Your task to perform on an android device: Clear all items from cart on walmart. Add bose soundsport free to the cart on walmart Image 0: 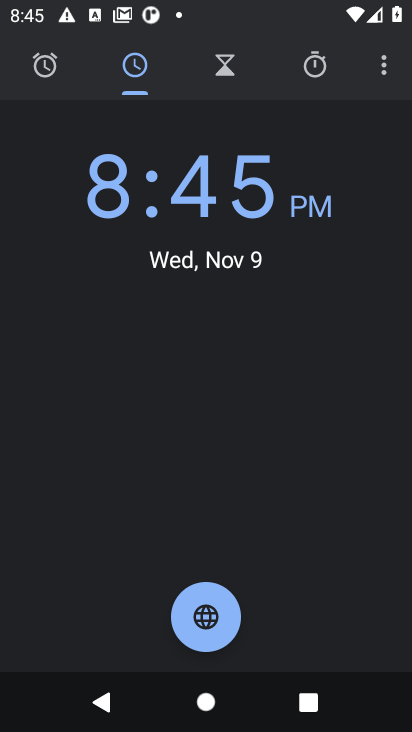
Step 0: press home button
Your task to perform on an android device: Clear all items from cart on walmart. Add bose soundsport free to the cart on walmart Image 1: 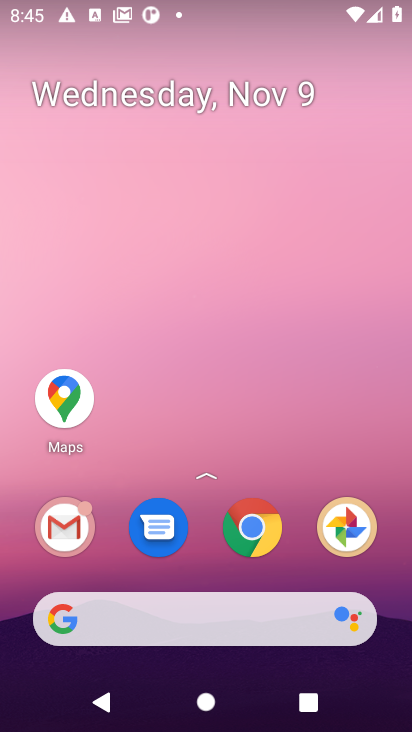
Step 1: click (256, 530)
Your task to perform on an android device: Clear all items from cart on walmart. Add bose soundsport free to the cart on walmart Image 2: 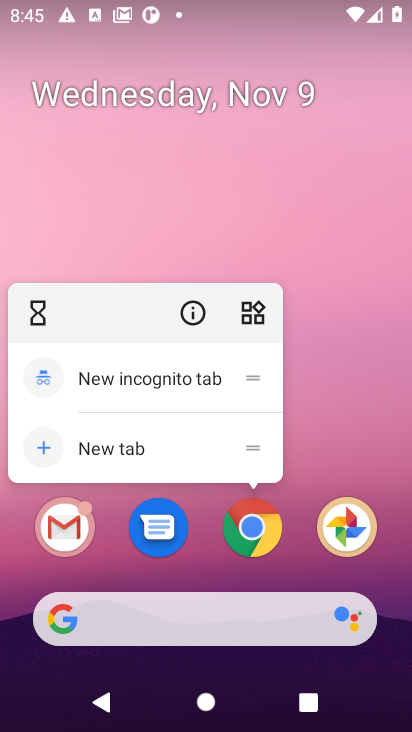
Step 2: click (256, 530)
Your task to perform on an android device: Clear all items from cart on walmart. Add bose soundsport free to the cart on walmart Image 3: 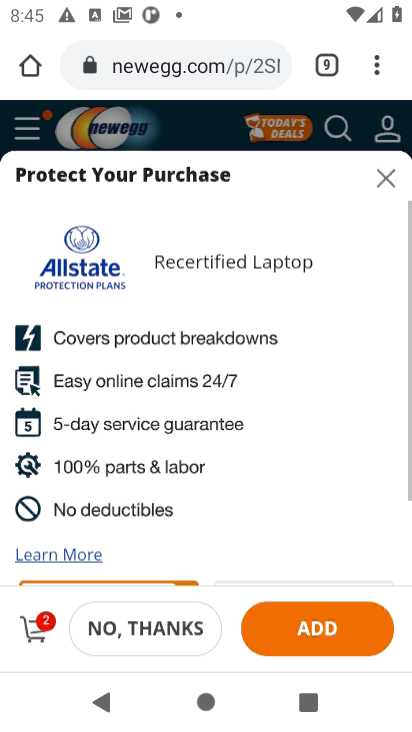
Step 3: click (186, 75)
Your task to perform on an android device: Clear all items from cart on walmart. Add bose soundsport free to the cart on walmart Image 4: 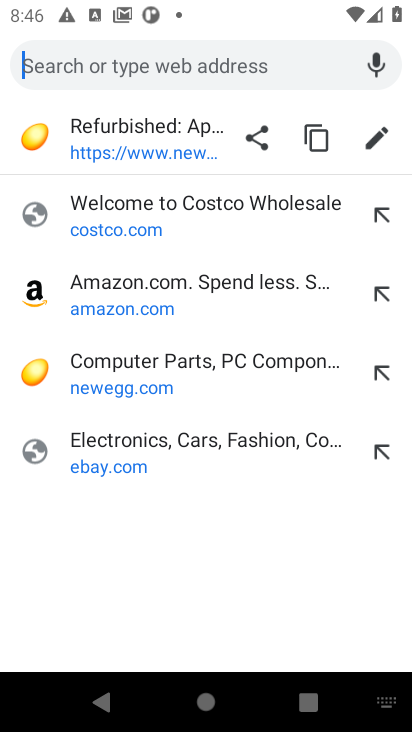
Step 4: click (182, 71)
Your task to perform on an android device: Clear all items from cart on walmart. Add bose soundsport free to the cart on walmart Image 5: 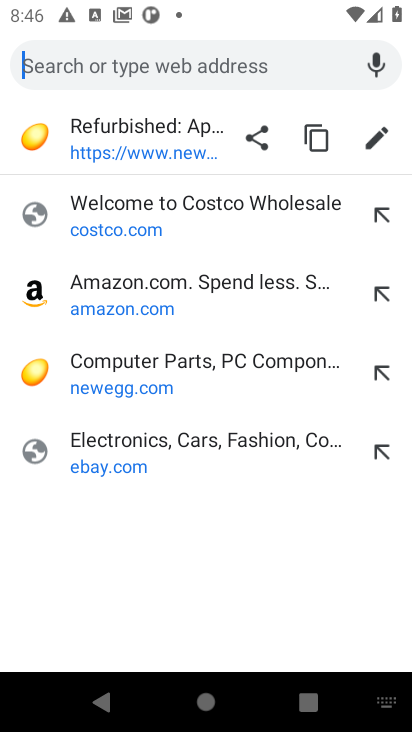
Step 5: type "walmart.com"
Your task to perform on an android device: Clear all items from cart on walmart. Add bose soundsport free to the cart on walmart Image 6: 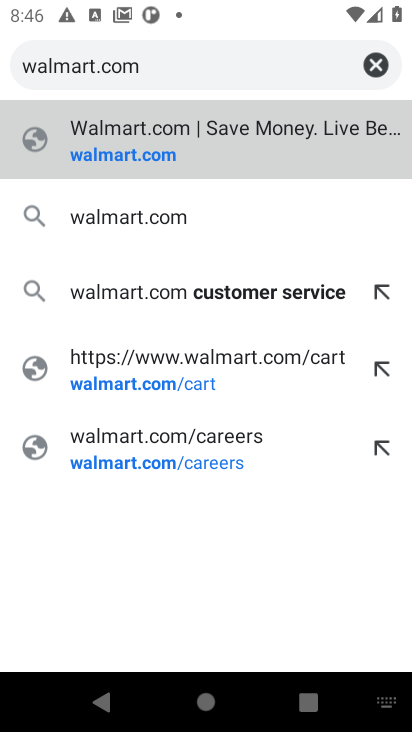
Step 6: click (141, 155)
Your task to perform on an android device: Clear all items from cart on walmart. Add bose soundsport free to the cart on walmart Image 7: 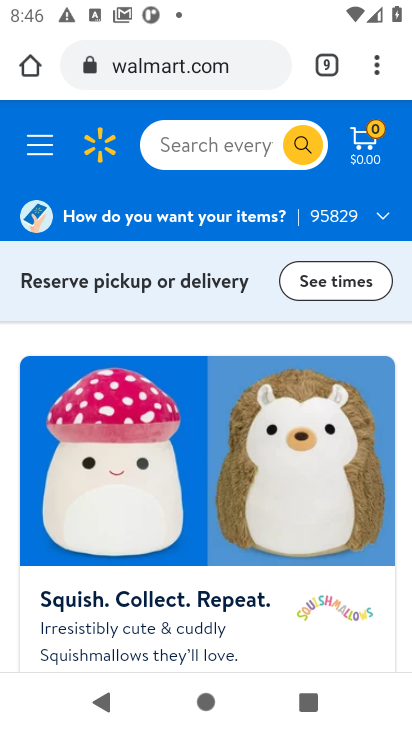
Step 7: click (367, 144)
Your task to perform on an android device: Clear all items from cart on walmart. Add bose soundsport free to the cart on walmart Image 8: 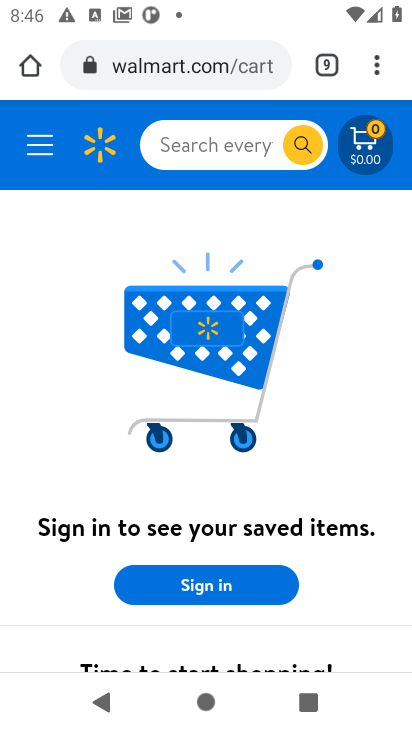
Step 8: click (186, 143)
Your task to perform on an android device: Clear all items from cart on walmart. Add bose soundsport free to the cart on walmart Image 9: 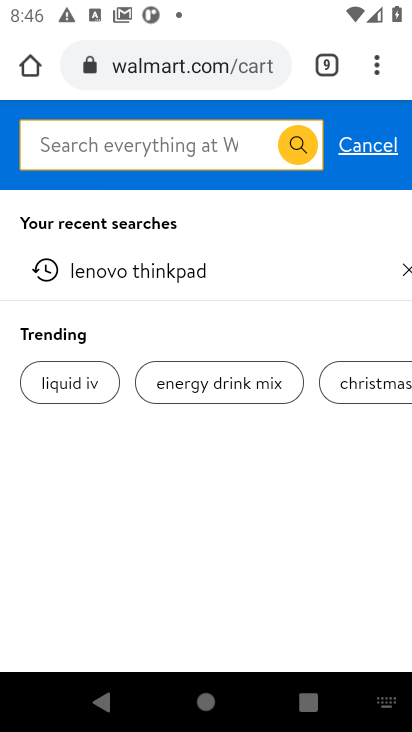
Step 9: type "bose soundsport free"
Your task to perform on an android device: Clear all items from cart on walmart. Add bose soundsport free to the cart on walmart Image 10: 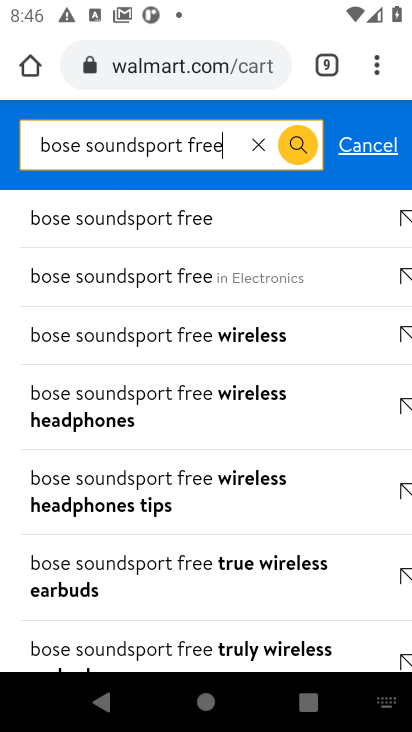
Step 10: click (151, 224)
Your task to perform on an android device: Clear all items from cart on walmart. Add bose soundsport free to the cart on walmart Image 11: 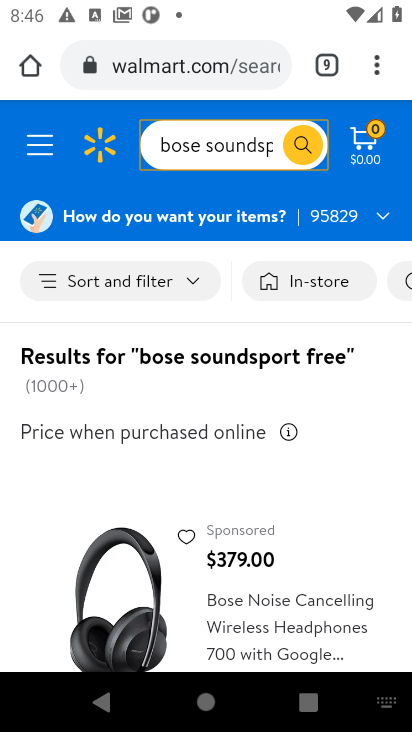
Step 11: task complete